Your task to perform on an android device: Set the phone to "Do not disturb". Image 0: 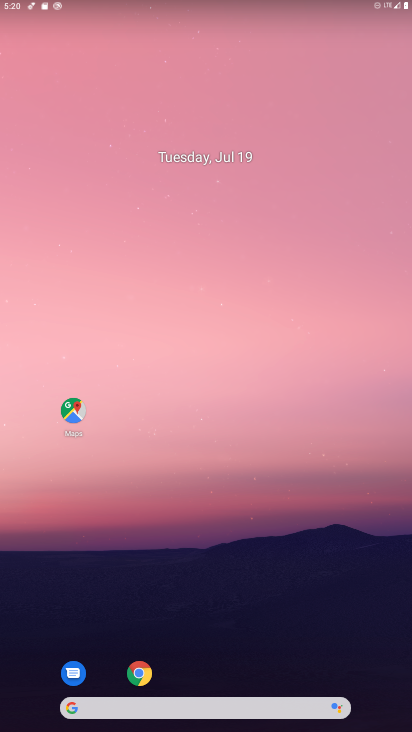
Step 0: press home button
Your task to perform on an android device: Set the phone to "Do not disturb". Image 1: 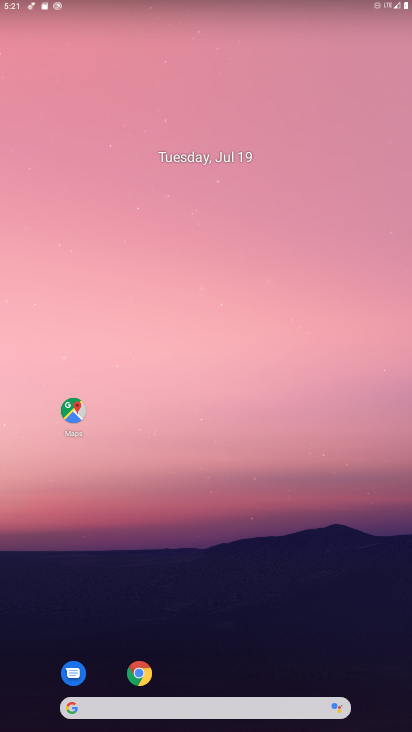
Step 1: task complete